Your task to perform on an android device: change alarm snooze length Image 0: 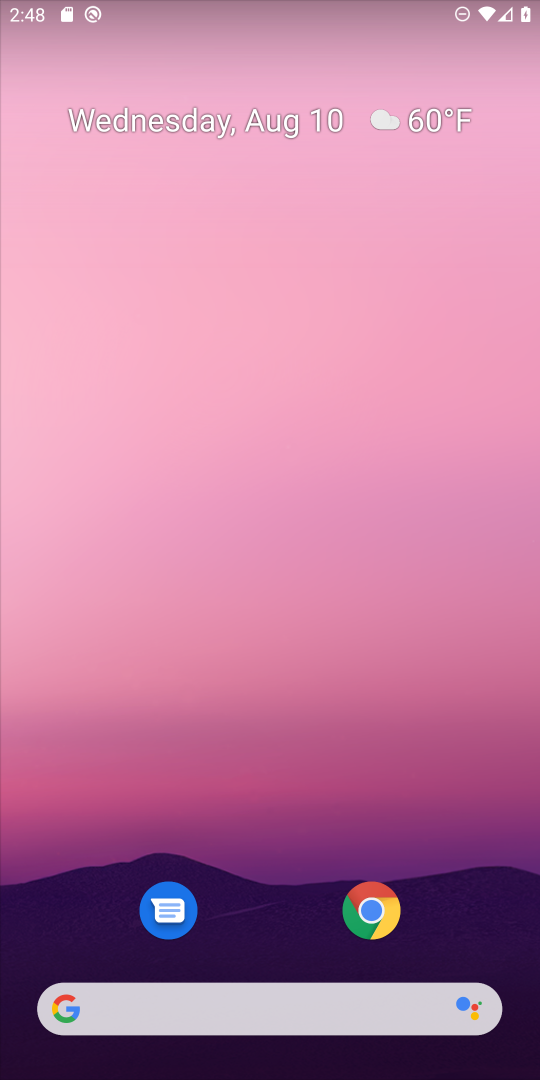
Step 0: drag from (256, 951) to (173, 163)
Your task to perform on an android device: change alarm snooze length Image 1: 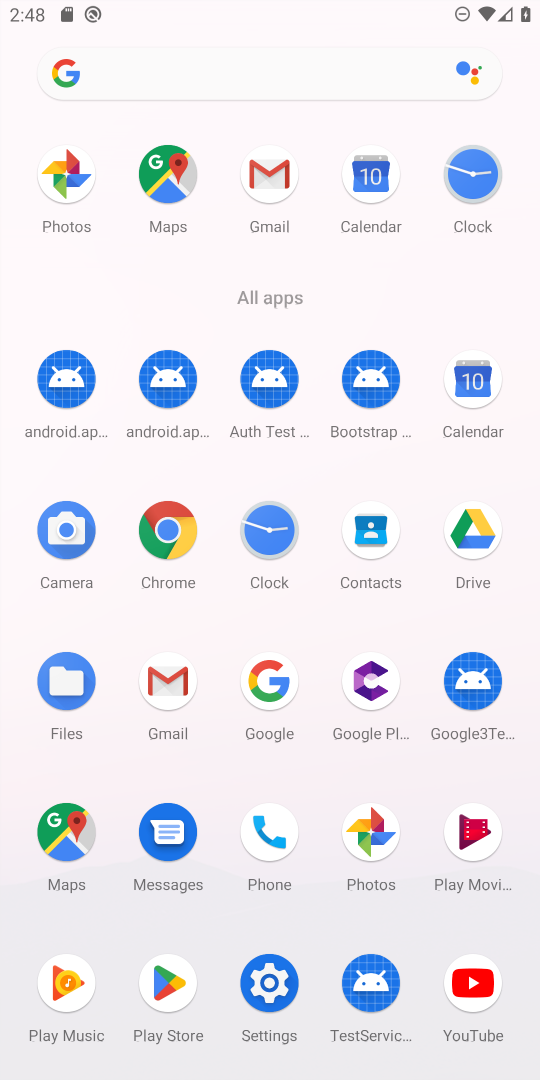
Step 1: click (454, 177)
Your task to perform on an android device: change alarm snooze length Image 2: 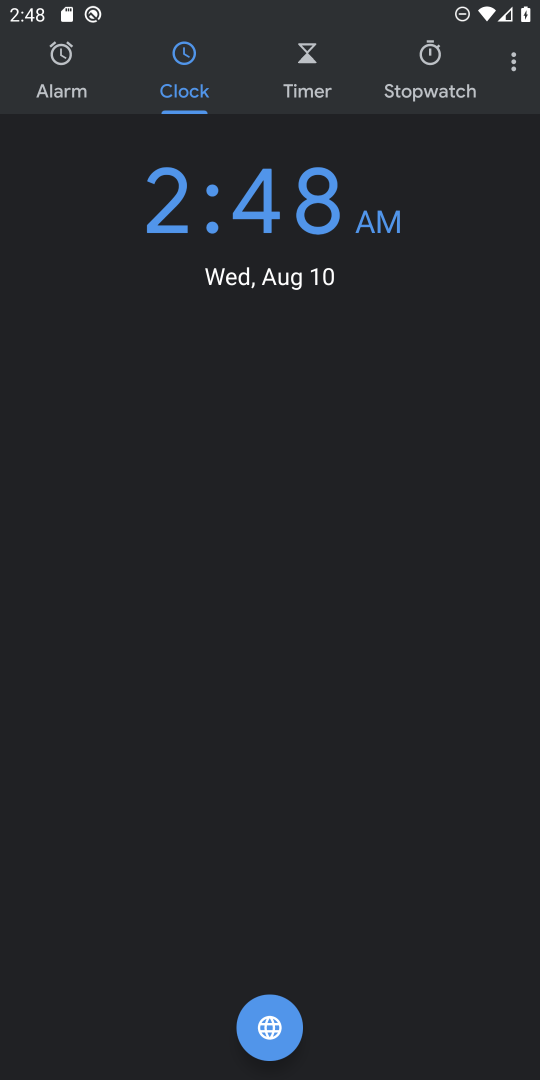
Step 2: click (513, 62)
Your task to perform on an android device: change alarm snooze length Image 3: 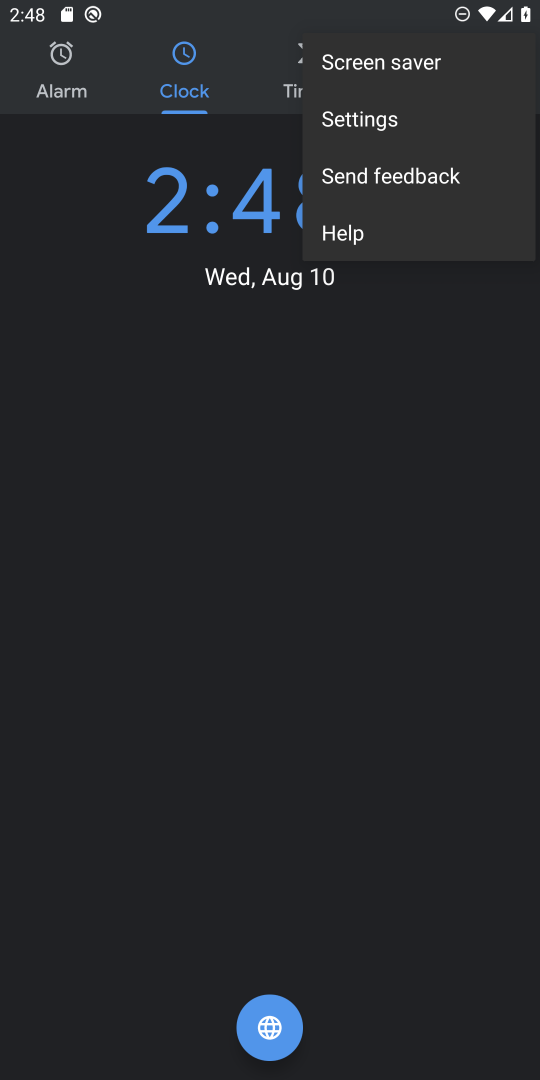
Step 3: click (403, 133)
Your task to perform on an android device: change alarm snooze length Image 4: 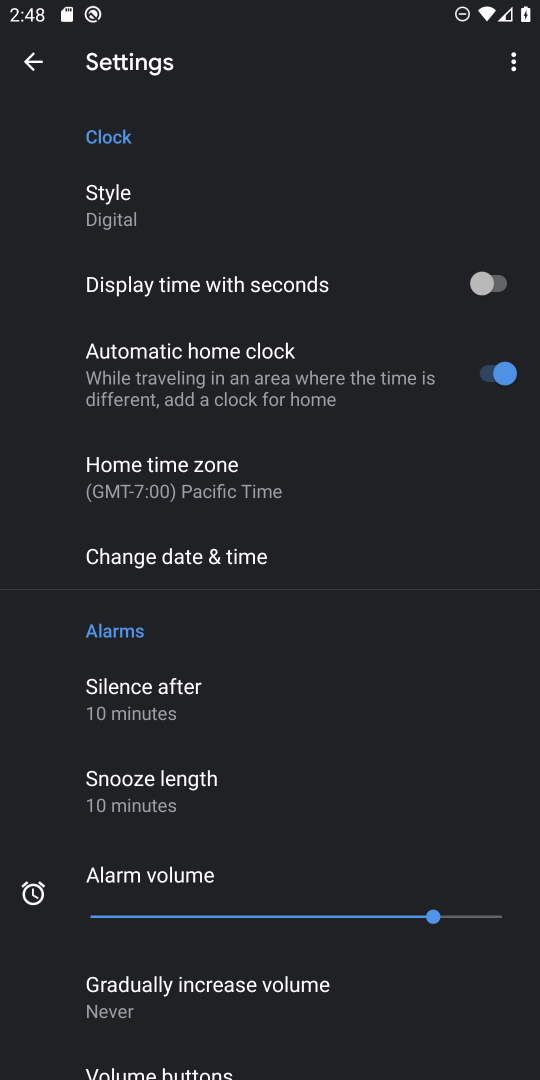
Step 4: click (155, 786)
Your task to perform on an android device: change alarm snooze length Image 5: 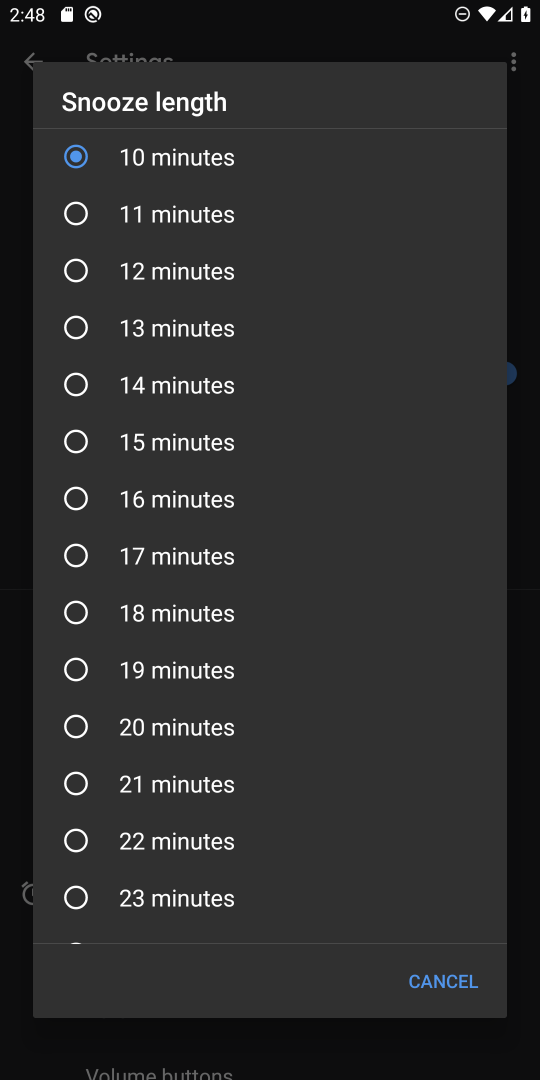
Step 5: click (142, 220)
Your task to perform on an android device: change alarm snooze length Image 6: 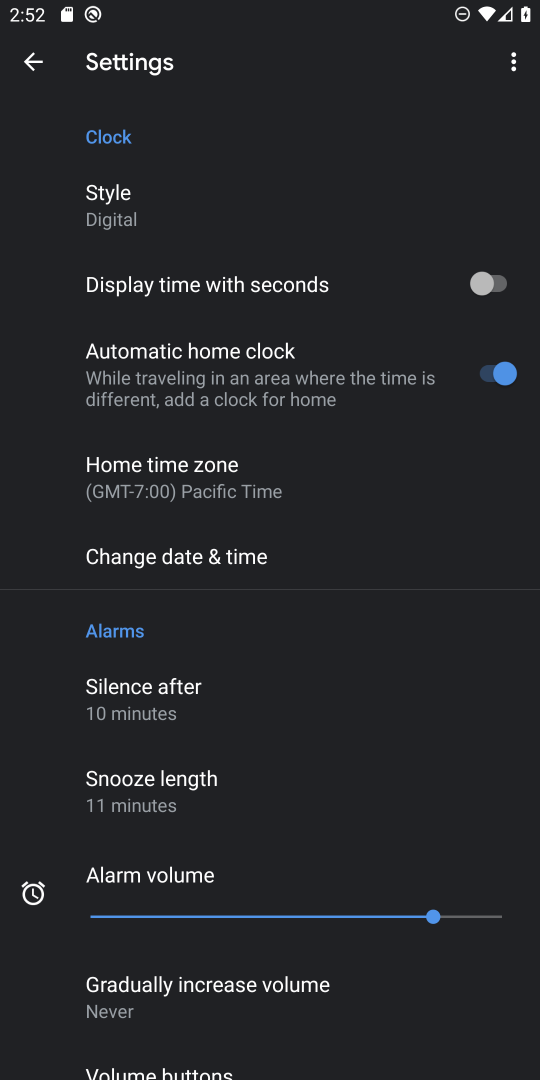
Step 6: task complete